Your task to perform on an android device: Show the shopping cart on target. Image 0: 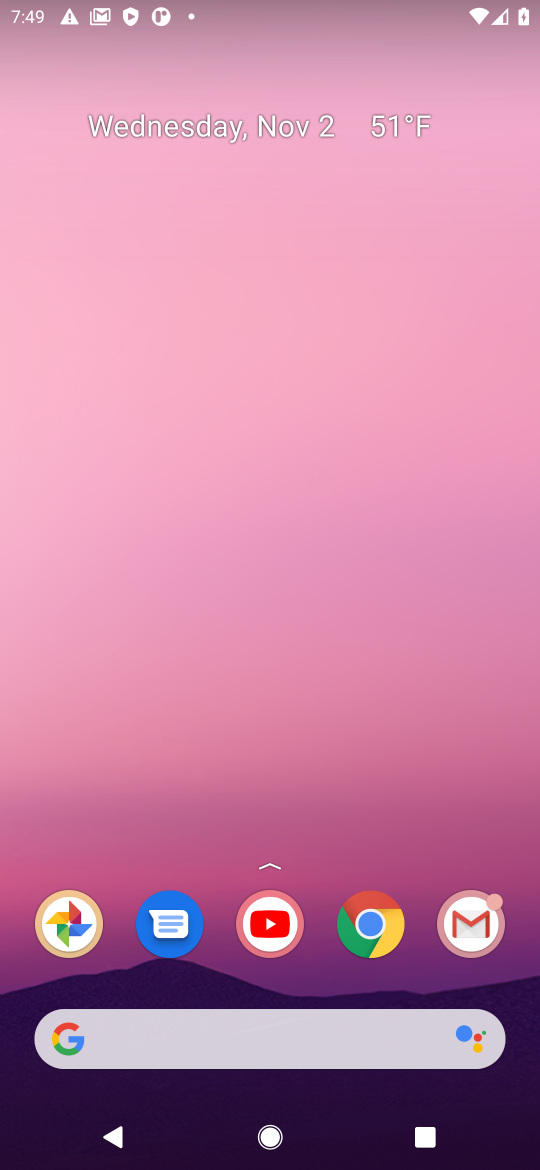
Step 0: click (385, 946)
Your task to perform on an android device: Show the shopping cart on target. Image 1: 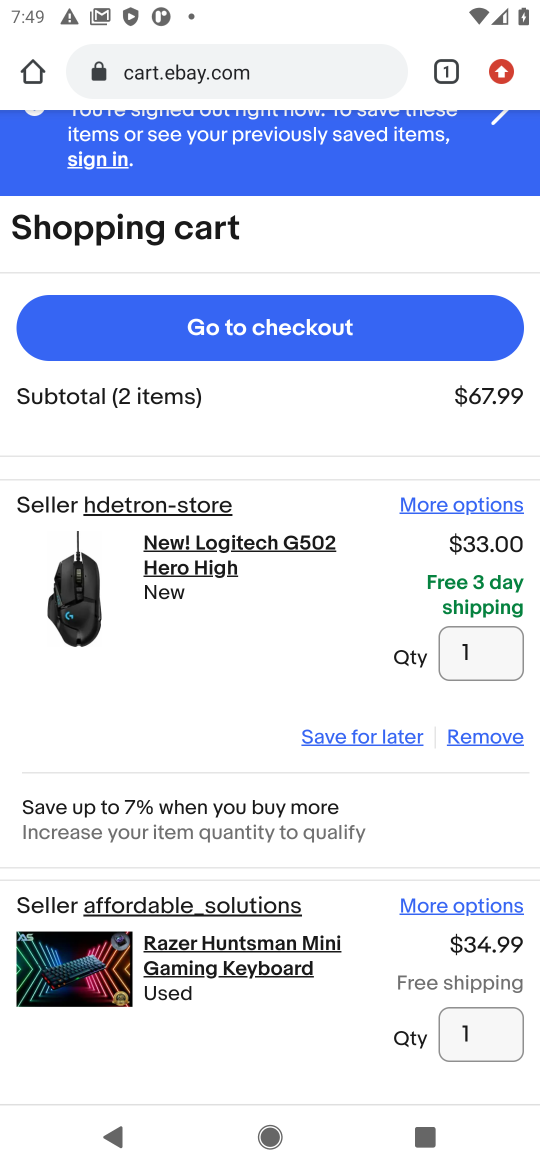
Step 1: click (203, 71)
Your task to perform on an android device: Show the shopping cart on target. Image 2: 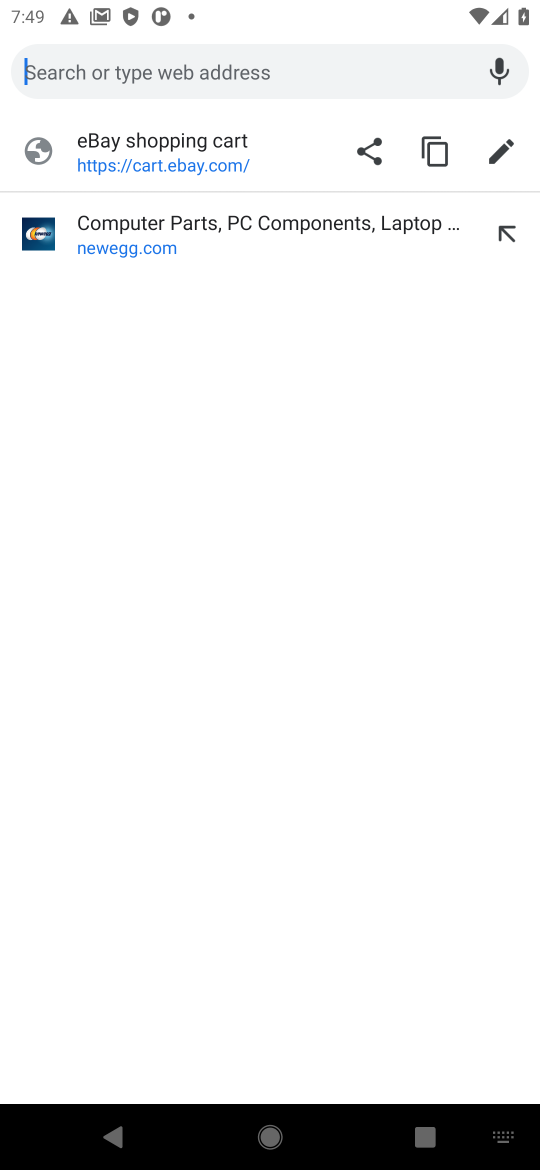
Step 2: type "target"
Your task to perform on an android device: Show the shopping cart on target. Image 3: 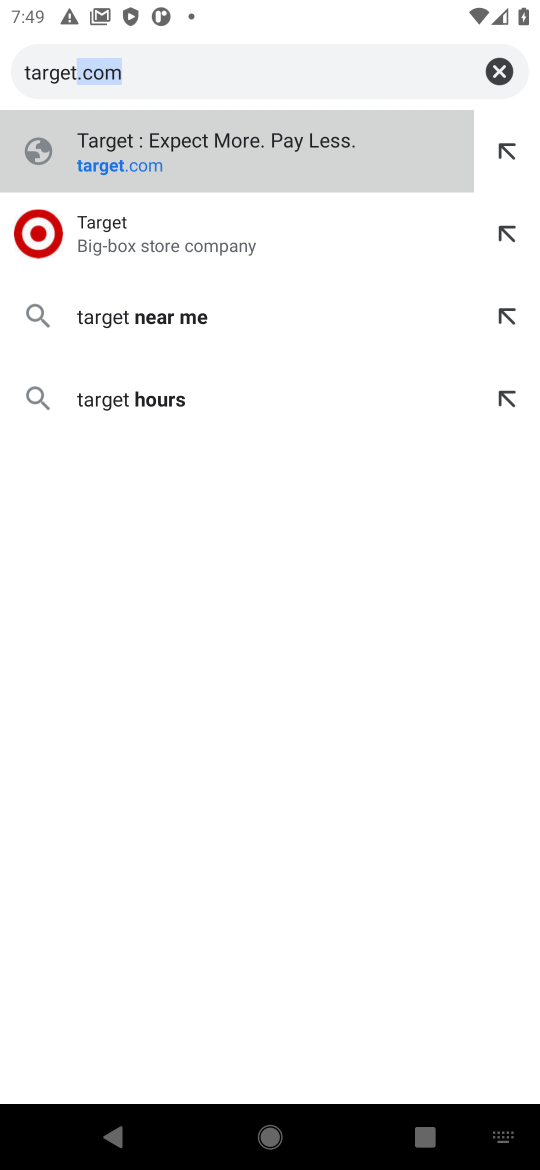
Step 3: type ""
Your task to perform on an android device: Show the shopping cart on target. Image 4: 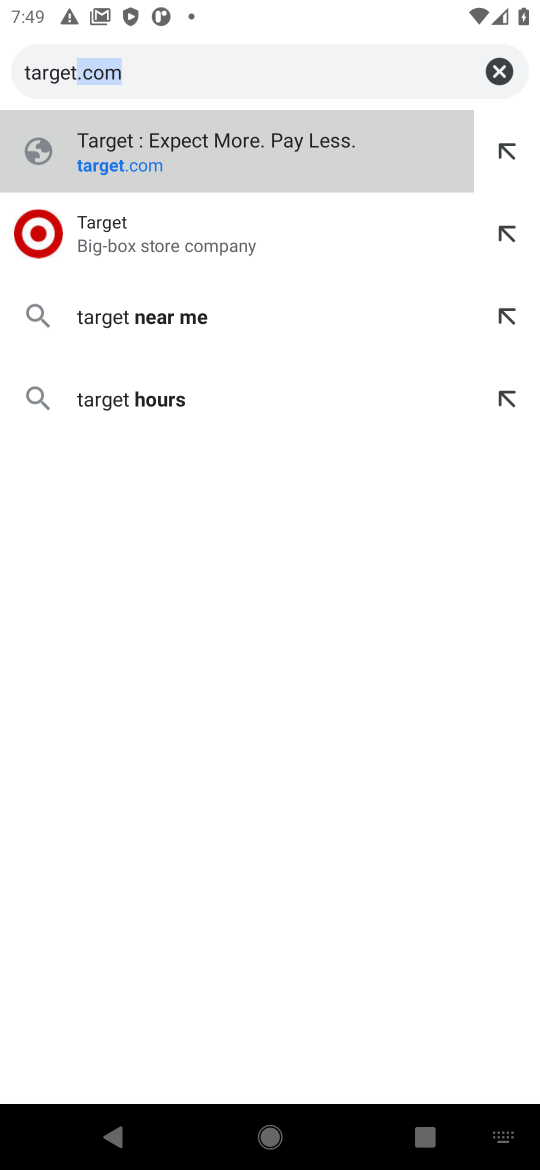
Step 4: click (155, 260)
Your task to perform on an android device: Show the shopping cart on target. Image 5: 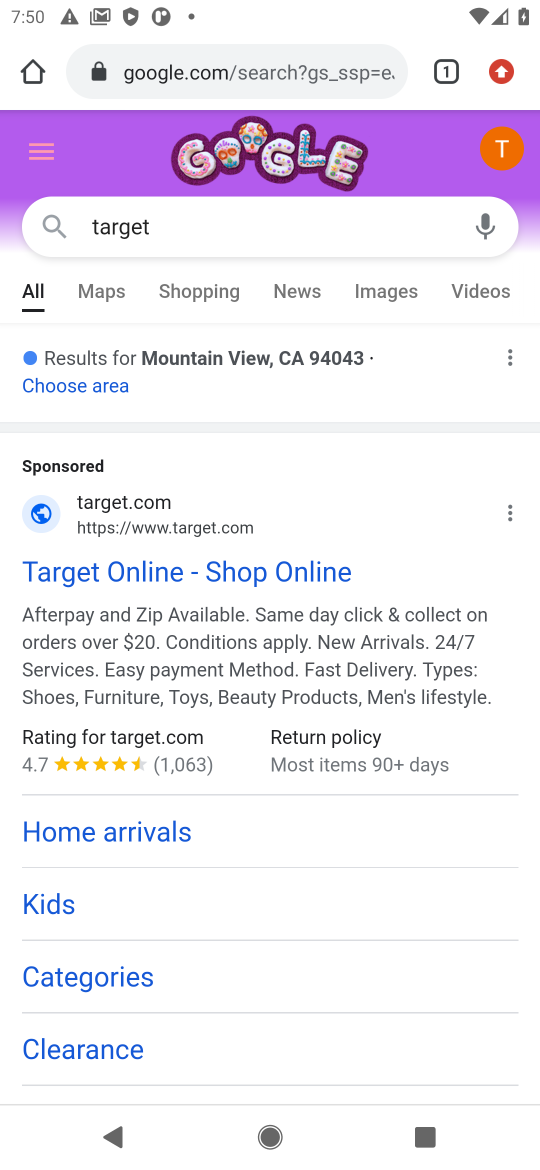
Step 5: click (128, 563)
Your task to perform on an android device: Show the shopping cart on target. Image 6: 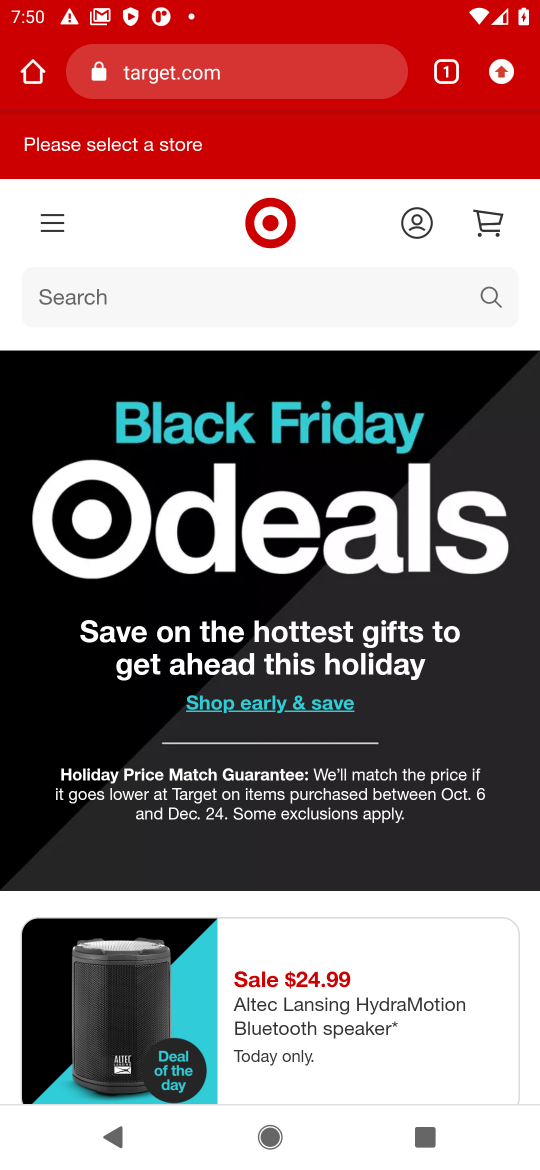
Step 6: click (485, 223)
Your task to perform on an android device: Show the shopping cart on target. Image 7: 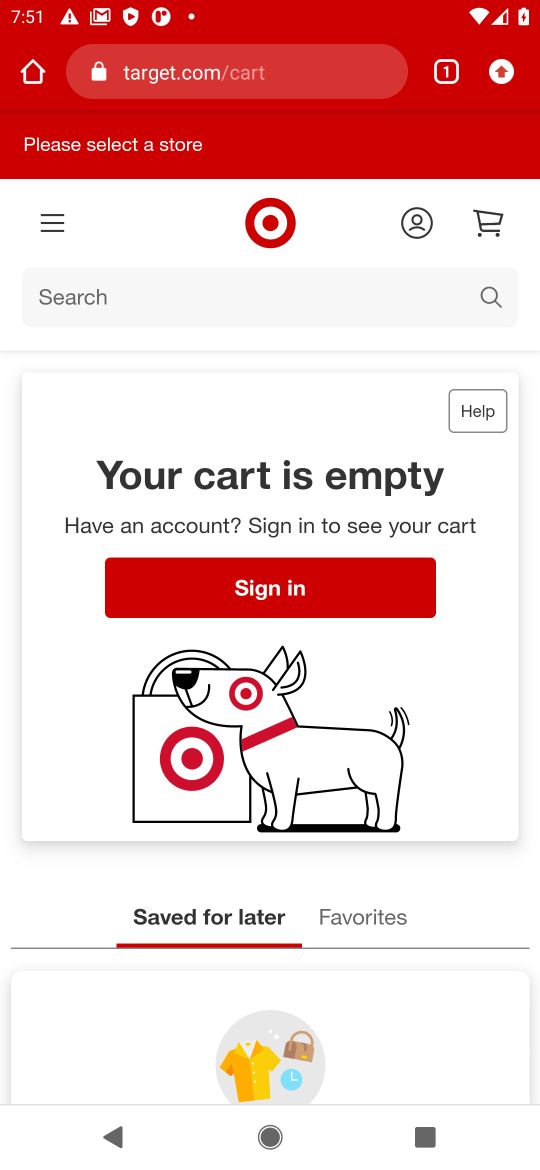
Step 7: task complete